Your task to perform on an android device: change text size in settings app Image 0: 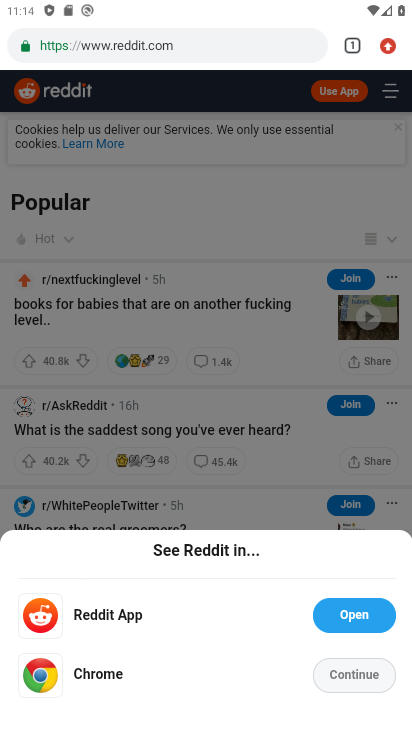
Step 0: press home button
Your task to perform on an android device: change text size in settings app Image 1: 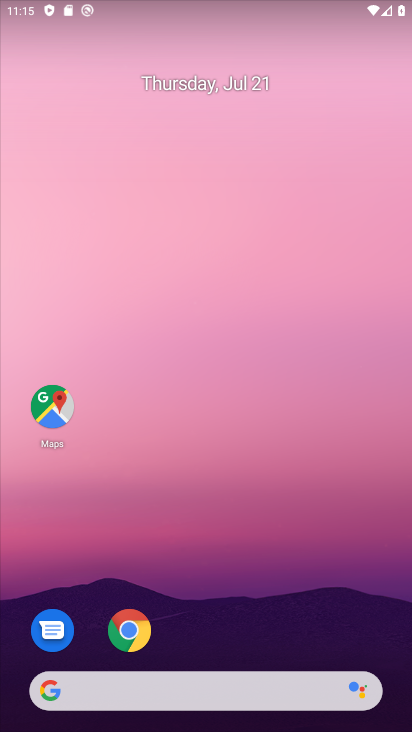
Step 1: drag from (197, 633) to (217, 57)
Your task to perform on an android device: change text size in settings app Image 2: 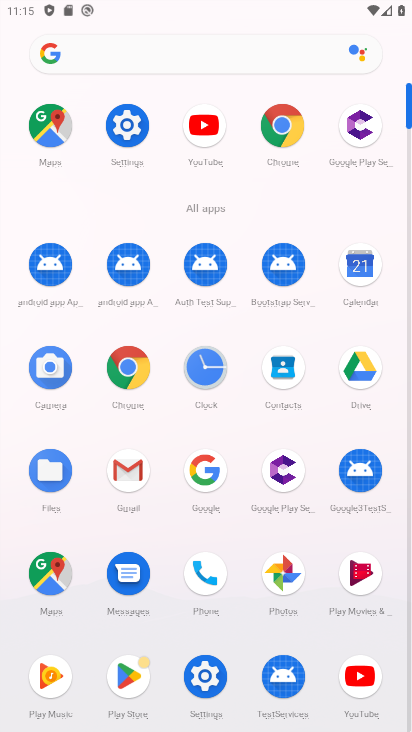
Step 2: click (134, 136)
Your task to perform on an android device: change text size in settings app Image 3: 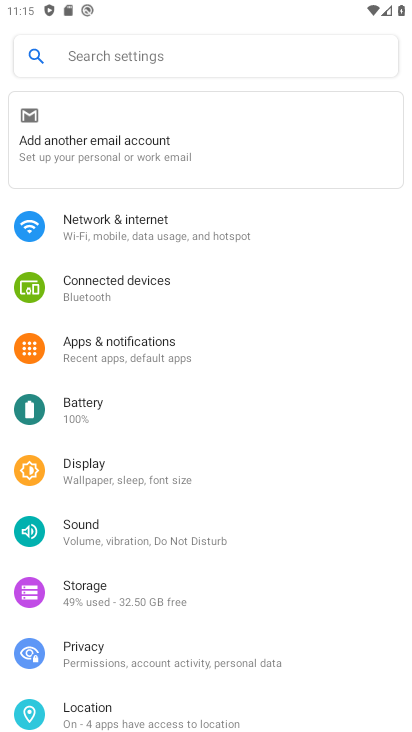
Step 3: click (90, 444)
Your task to perform on an android device: change text size in settings app Image 4: 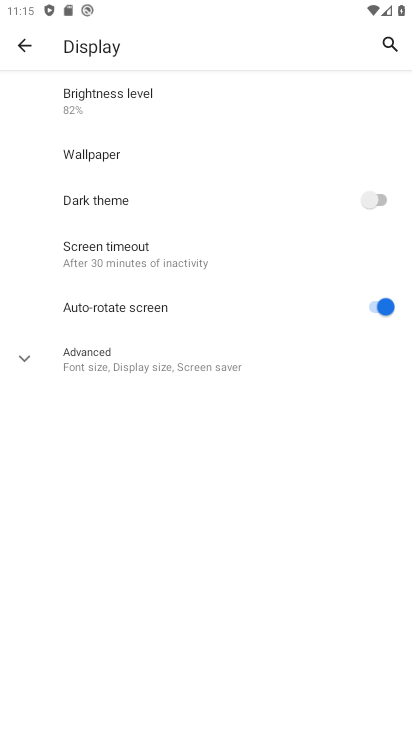
Step 4: click (94, 374)
Your task to perform on an android device: change text size in settings app Image 5: 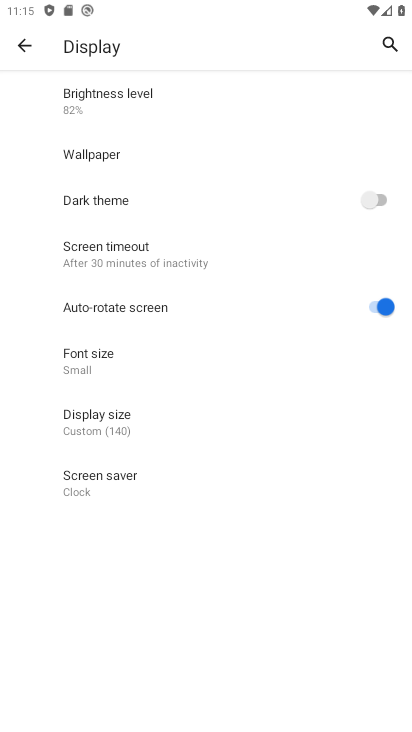
Step 5: click (94, 374)
Your task to perform on an android device: change text size in settings app Image 6: 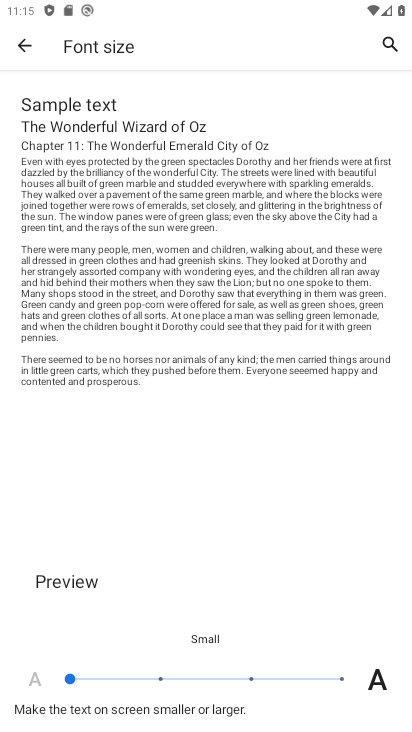
Step 6: click (153, 678)
Your task to perform on an android device: change text size in settings app Image 7: 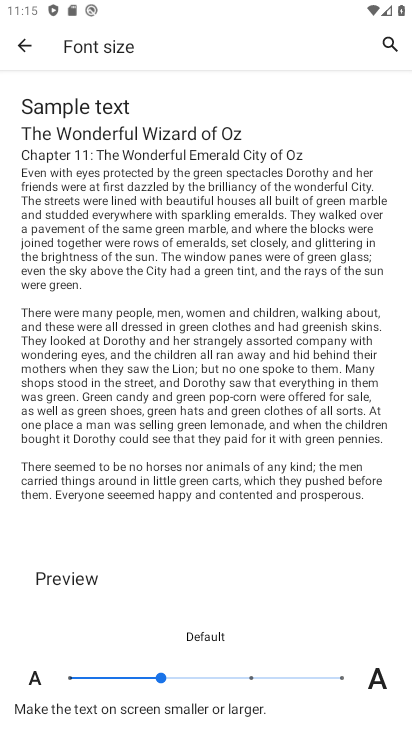
Step 7: task complete